Your task to perform on an android device: read, delete, or share a saved page in the chrome app Image 0: 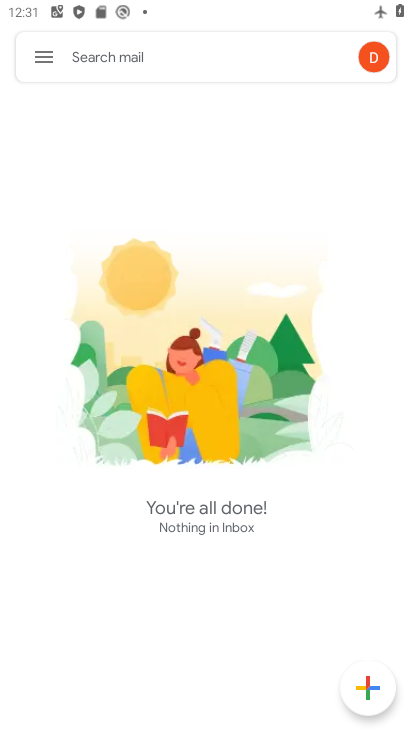
Step 0: press home button
Your task to perform on an android device: read, delete, or share a saved page in the chrome app Image 1: 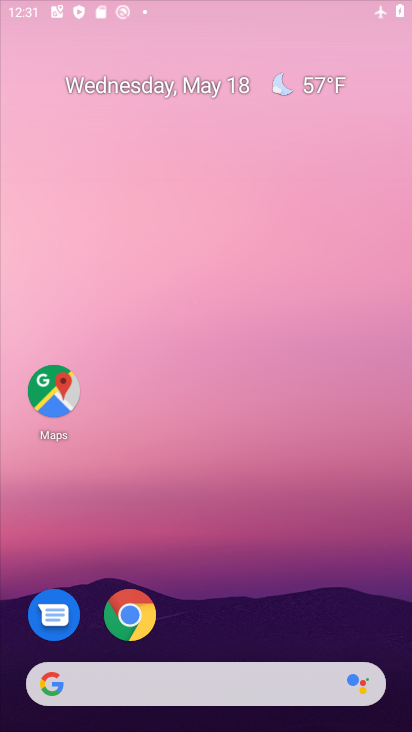
Step 1: drag from (351, 615) to (295, 31)
Your task to perform on an android device: read, delete, or share a saved page in the chrome app Image 2: 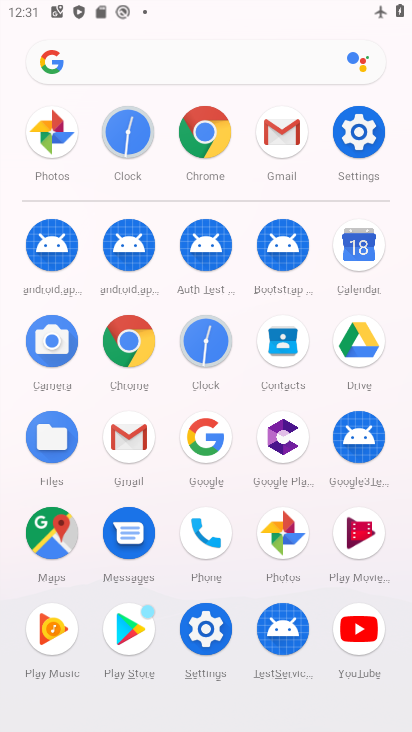
Step 2: click (140, 348)
Your task to perform on an android device: read, delete, or share a saved page in the chrome app Image 3: 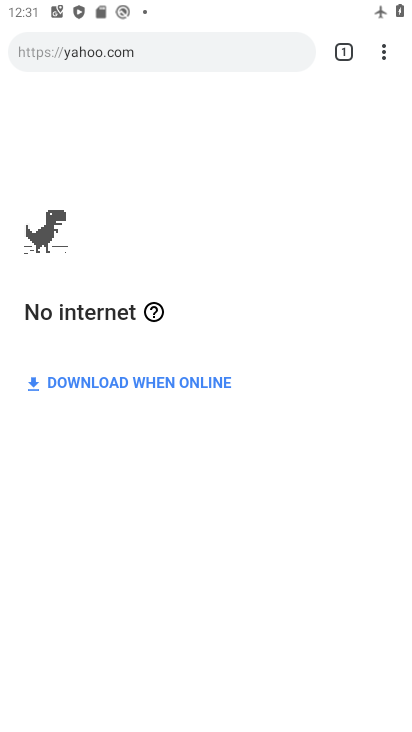
Step 3: task complete